Your task to perform on an android device: turn on data saver in the chrome app Image 0: 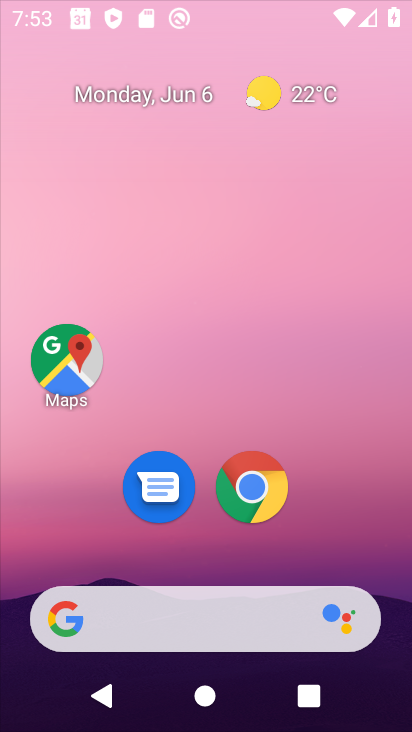
Step 0: click (342, 152)
Your task to perform on an android device: turn on data saver in the chrome app Image 1: 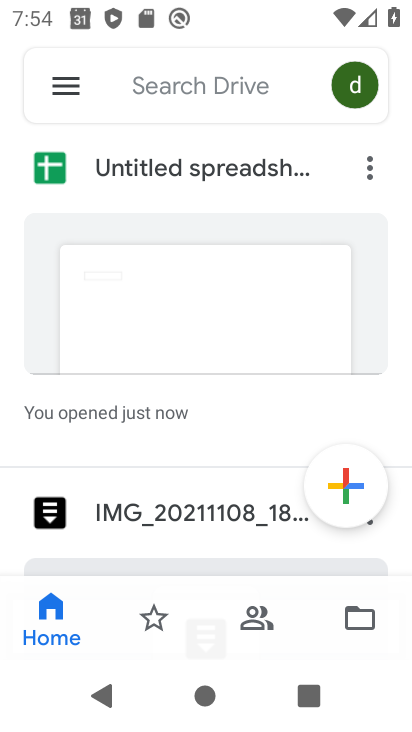
Step 1: click (74, 86)
Your task to perform on an android device: turn on data saver in the chrome app Image 2: 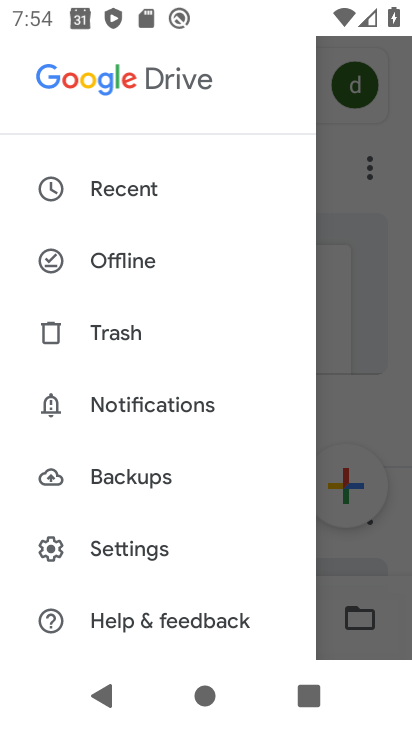
Step 2: drag from (174, 544) to (182, 280)
Your task to perform on an android device: turn on data saver in the chrome app Image 3: 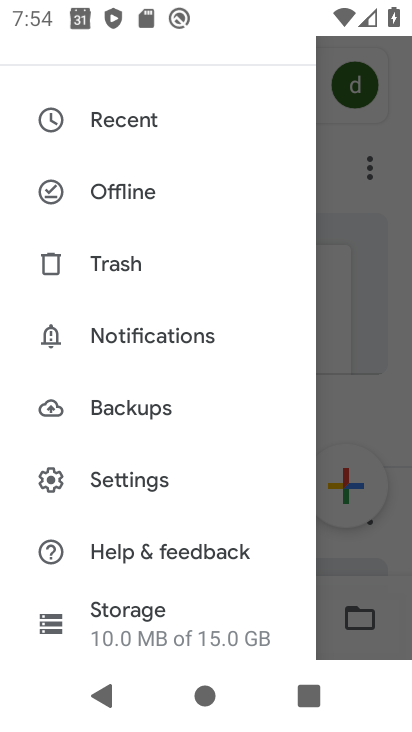
Step 3: press home button
Your task to perform on an android device: turn on data saver in the chrome app Image 4: 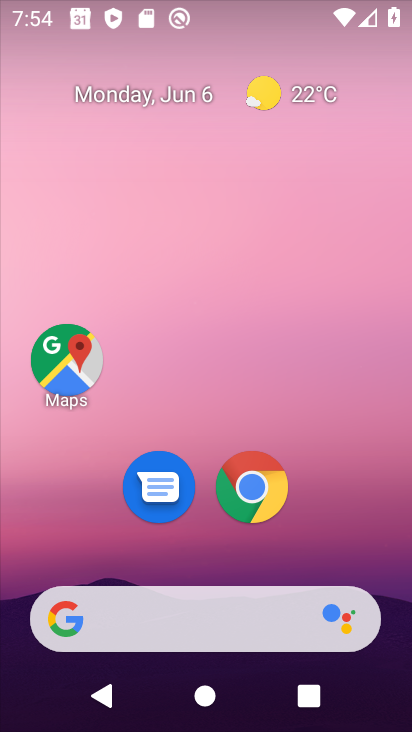
Step 4: click (265, 501)
Your task to perform on an android device: turn on data saver in the chrome app Image 5: 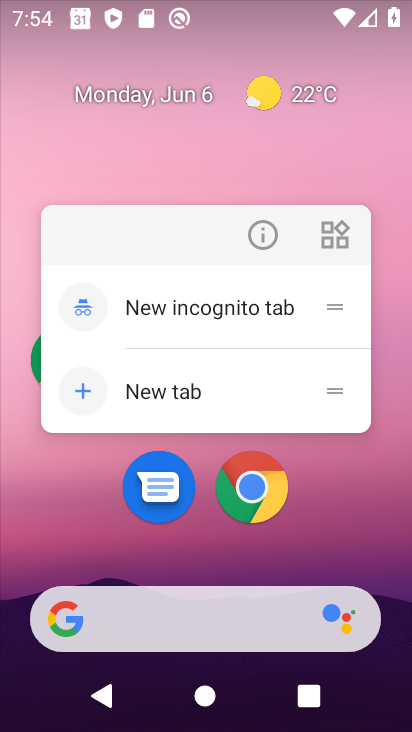
Step 5: click (271, 507)
Your task to perform on an android device: turn on data saver in the chrome app Image 6: 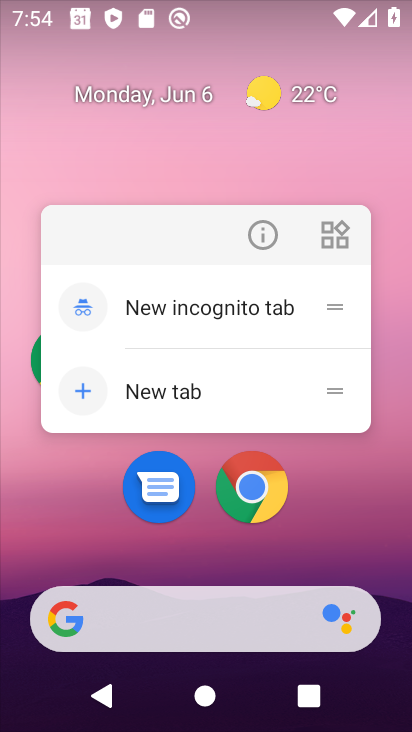
Step 6: drag from (323, 512) to (332, 122)
Your task to perform on an android device: turn on data saver in the chrome app Image 7: 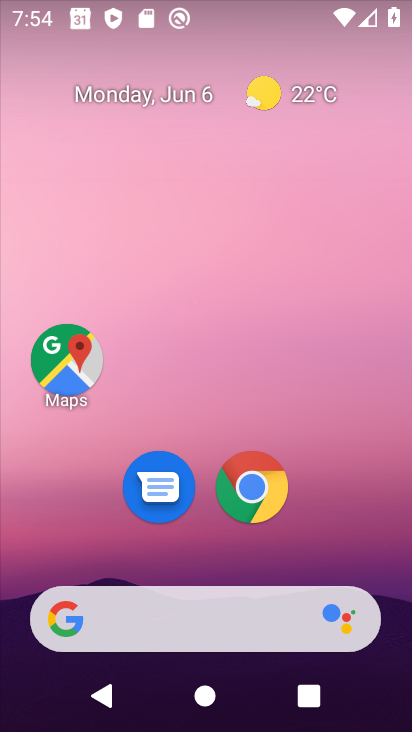
Step 7: drag from (323, 485) to (312, 138)
Your task to perform on an android device: turn on data saver in the chrome app Image 8: 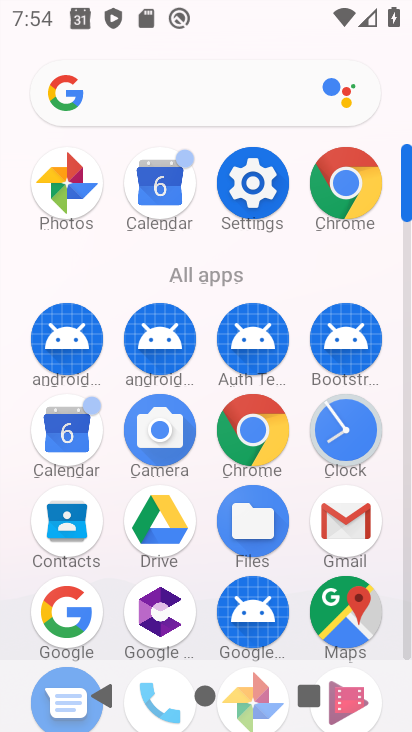
Step 8: click (328, 177)
Your task to perform on an android device: turn on data saver in the chrome app Image 9: 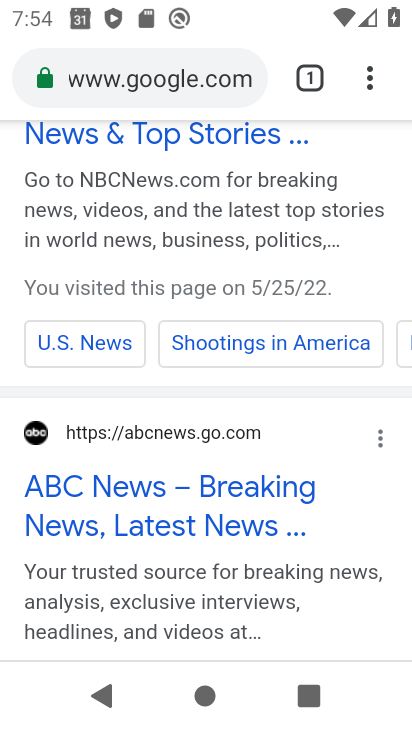
Step 9: drag from (377, 50) to (140, 539)
Your task to perform on an android device: turn on data saver in the chrome app Image 10: 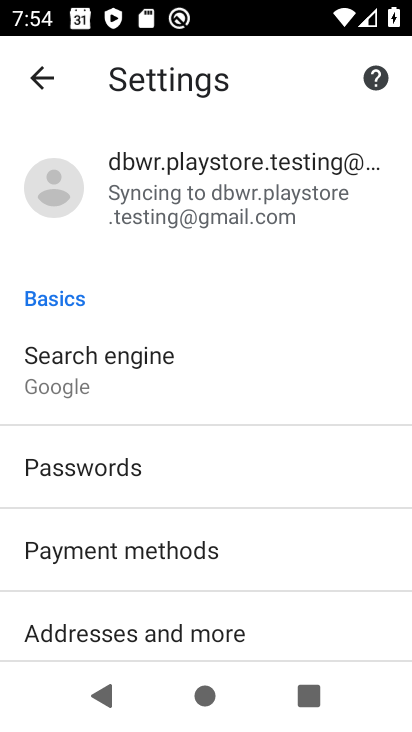
Step 10: drag from (268, 598) to (288, 278)
Your task to perform on an android device: turn on data saver in the chrome app Image 11: 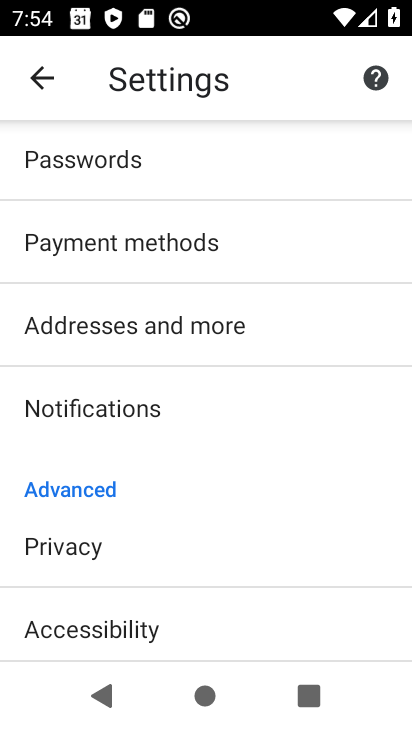
Step 11: drag from (237, 599) to (264, 238)
Your task to perform on an android device: turn on data saver in the chrome app Image 12: 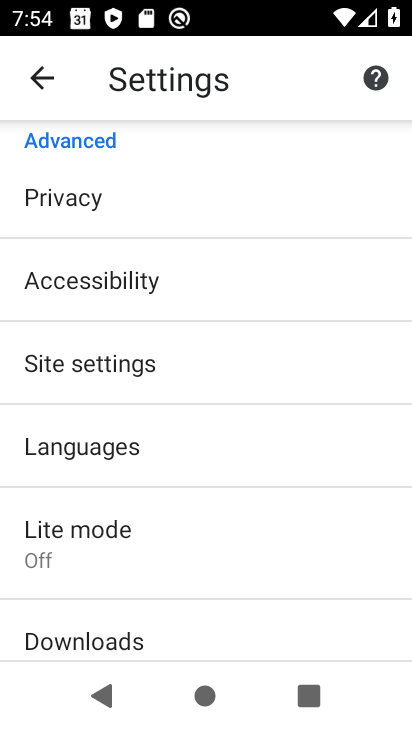
Step 12: drag from (217, 568) to (280, 229)
Your task to perform on an android device: turn on data saver in the chrome app Image 13: 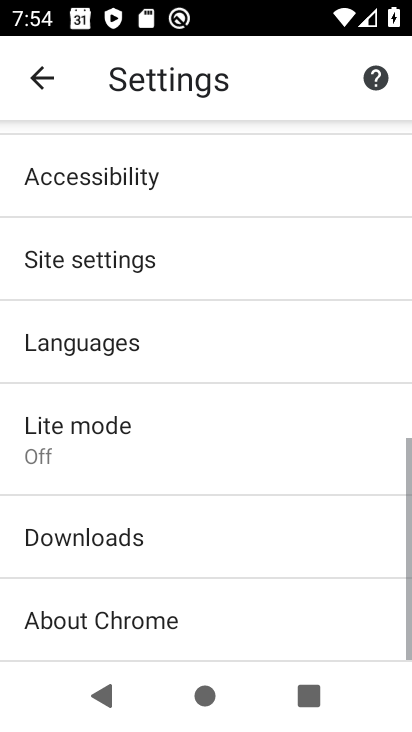
Step 13: drag from (251, 574) to (298, 292)
Your task to perform on an android device: turn on data saver in the chrome app Image 14: 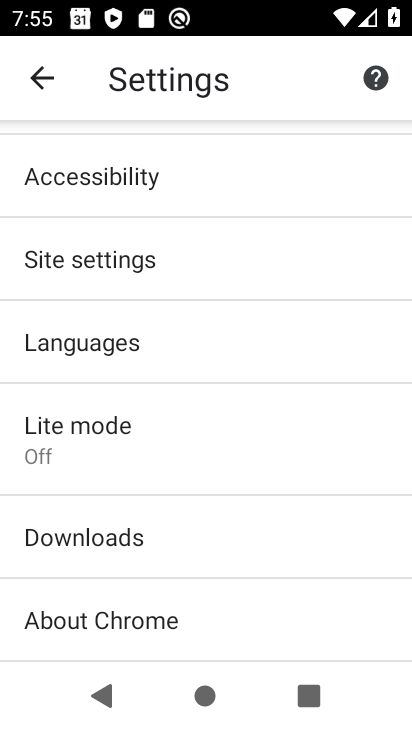
Step 14: click (140, 440)
Your task to perform on an android device: turn on data saver in the chrome app Image 15: 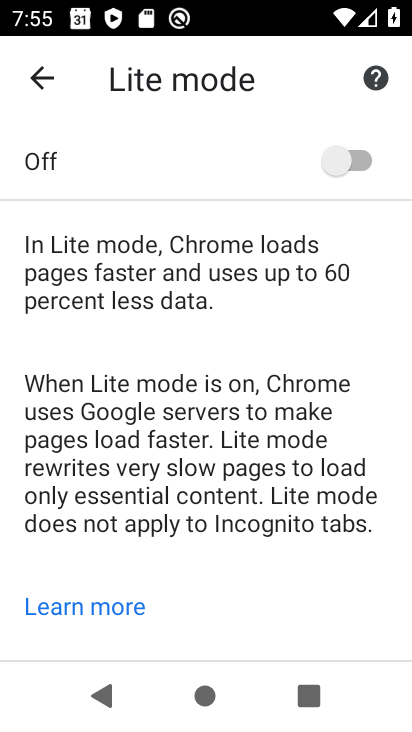
Step 15: click (365, 154)
Your task to perform on an android device: turn on data saver in the chrome app Image 16: 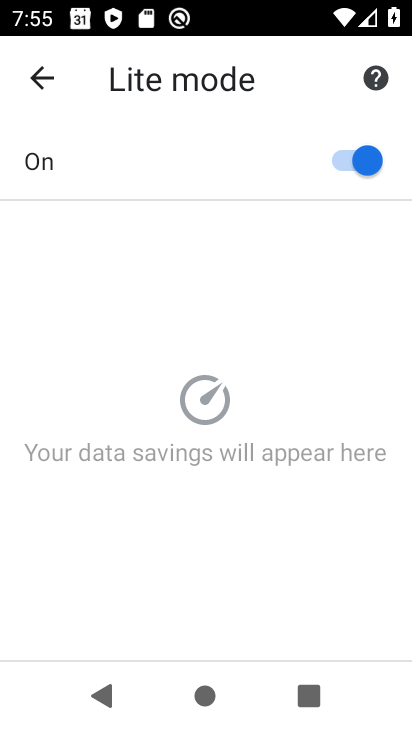
Step 16: task complete